Your task to perform on an android device: add a contact in the contacts app Image 0: 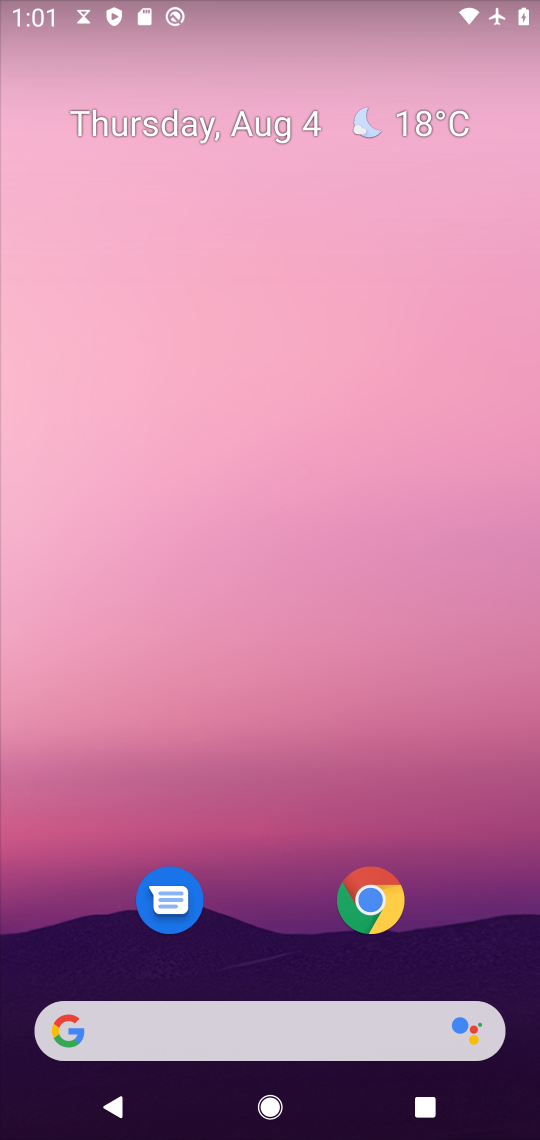
Step 0: press home button
Your task to perform on an android device: add a contact in the contacts app Image 1: 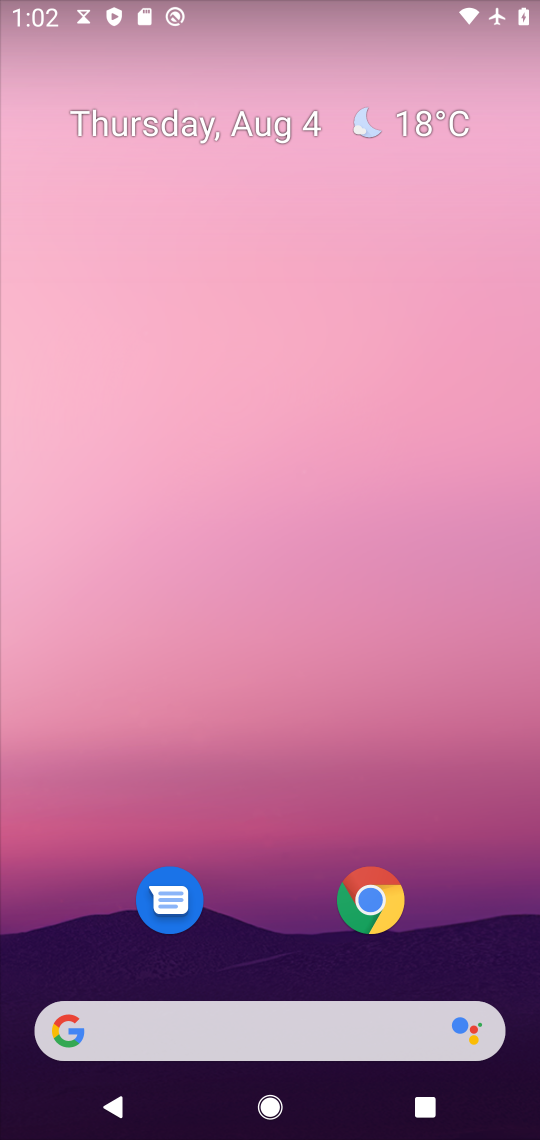
Step 1: drag from (226, 921) to (442, 12)
Your task to perform on an android device: add a contact in the contacts app Image 2: 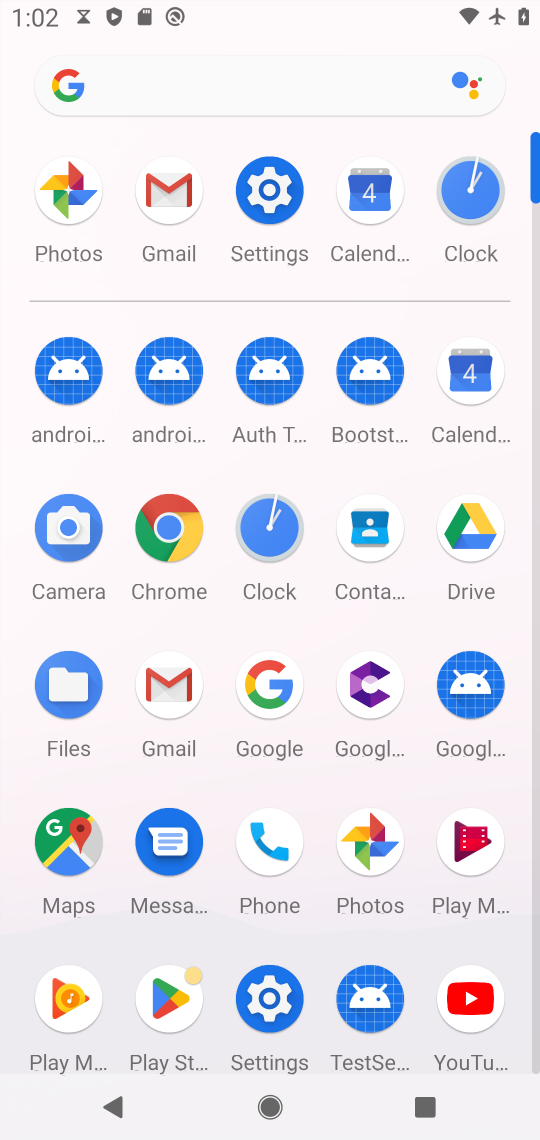
Step 2: click (362, 523)
Your task to perform on an android device: add a contact in the contacts app Image 3: 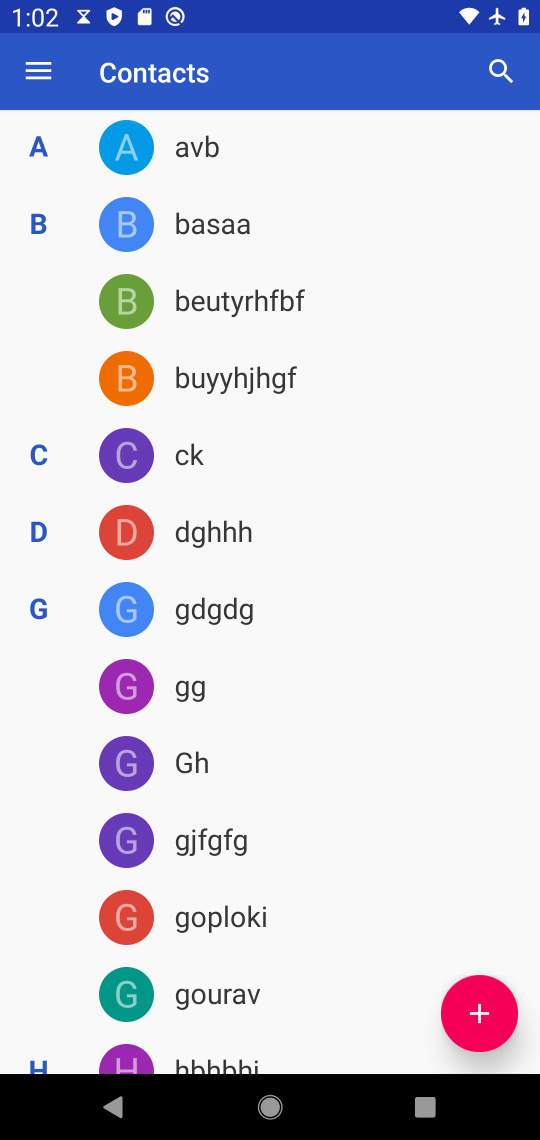
Step 3: click (482, 1025)
Your task to perform on an android device: add a contact in the contacts app Image 4: 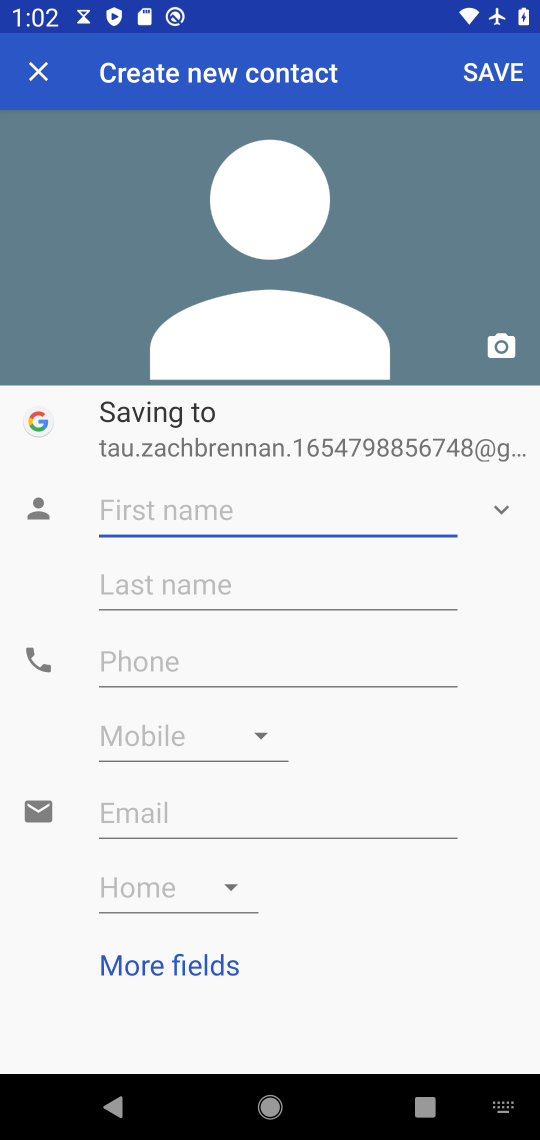
Step 4: type "nkjj,jk,j"
Your task to perform on an android device: add a contact in the contacts app Image 5: 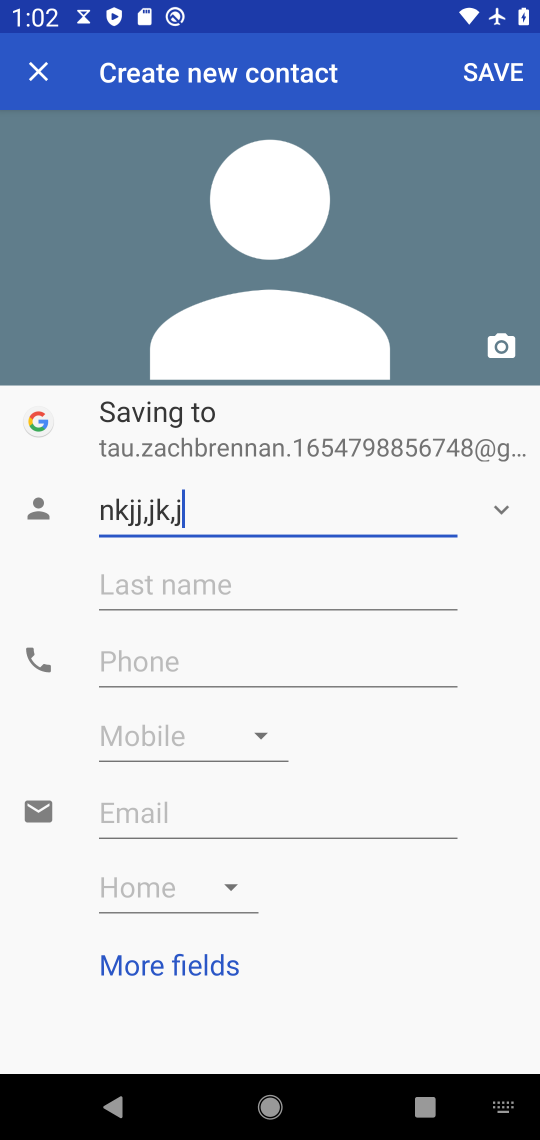
Step 5: click (125, 647)
Your task to perform on an android device: add a contact in the contacts app Image 6: 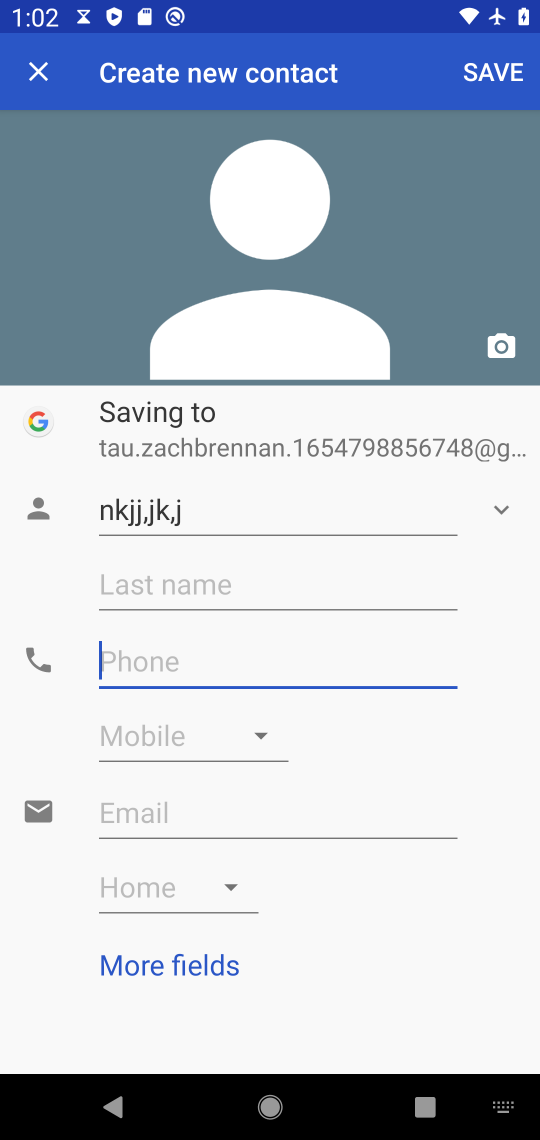
Step 6: type "5656565"
Your task to perform on an android device: add a contact in the contacts app Image 7: 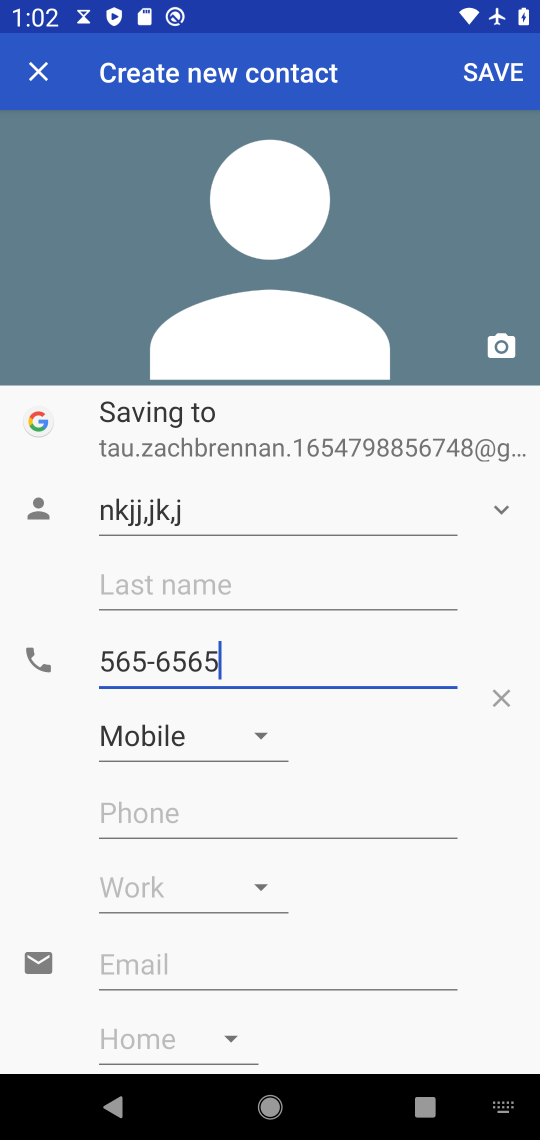
Step 7: click (495, 76)
Your task to perform on an android device: add a contact in the contacts app Image 8: 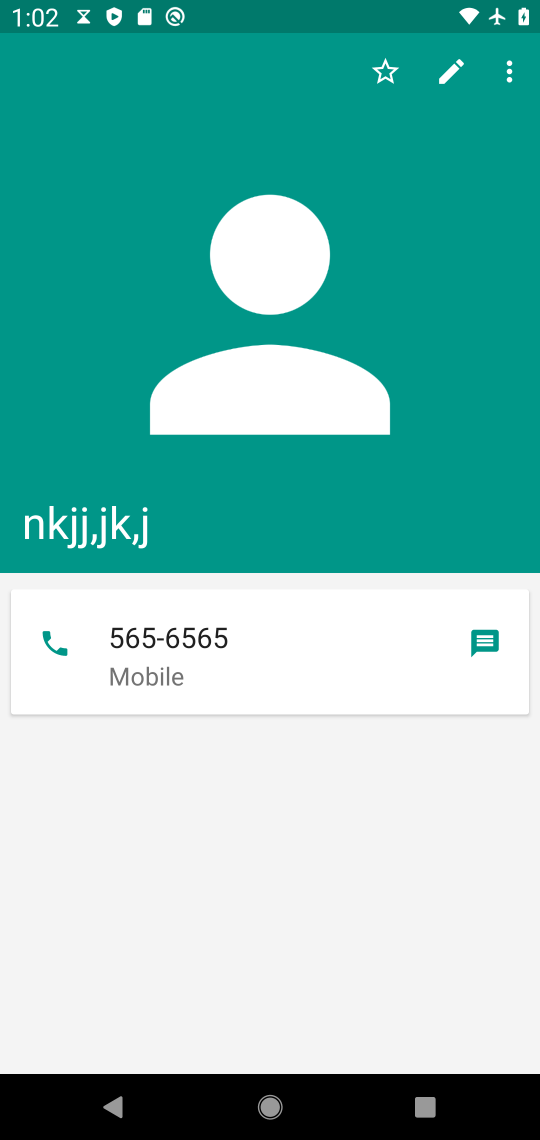
Step 8: task complete